Your task to perform on an android device: Show me popular videos on Youtube Image 0: 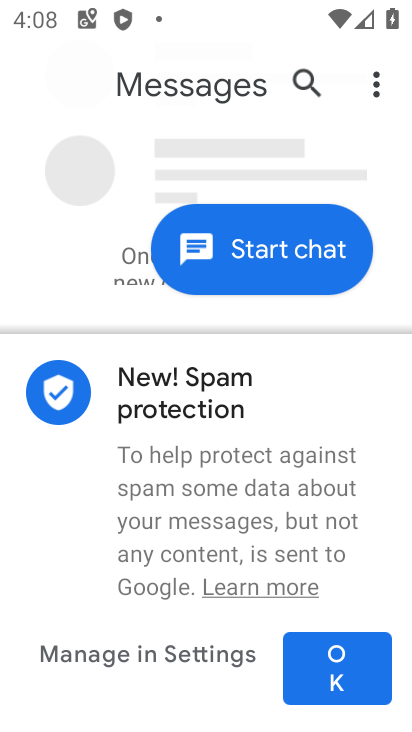
Step 0: press back button
Your task to perform on an android device: Show me popular videos on Youtube Image 1: 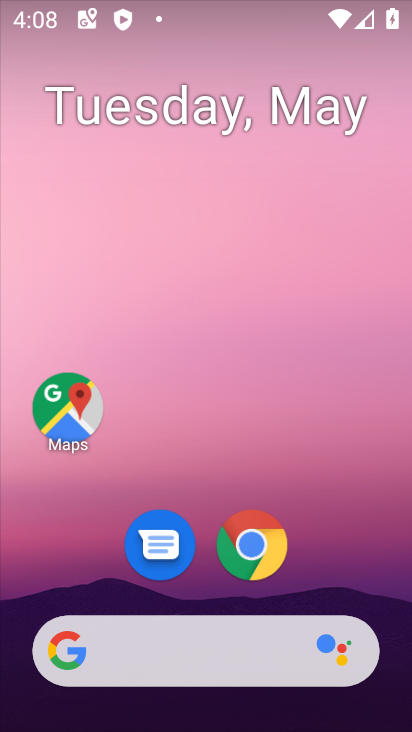
Step 1: drag from (330, 567) to (260, 145)
Your task to perform on an android device: Show me popular videos on Youtube Image 2: 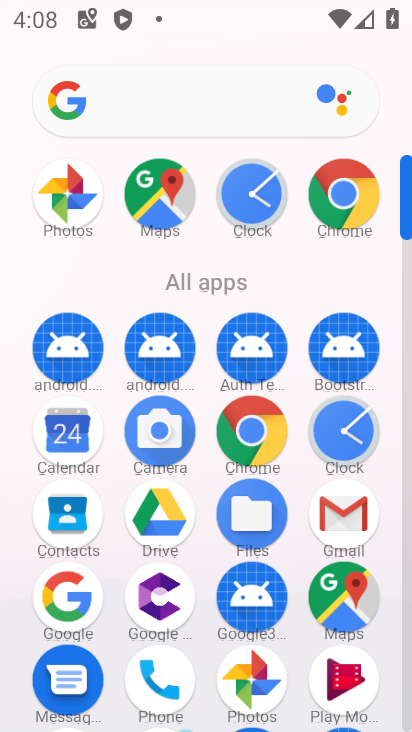
Step 2: drag from (304, 547) to (318, 239)
Your task to perform on an android device: Show me popular videos on Youtube Image 3: 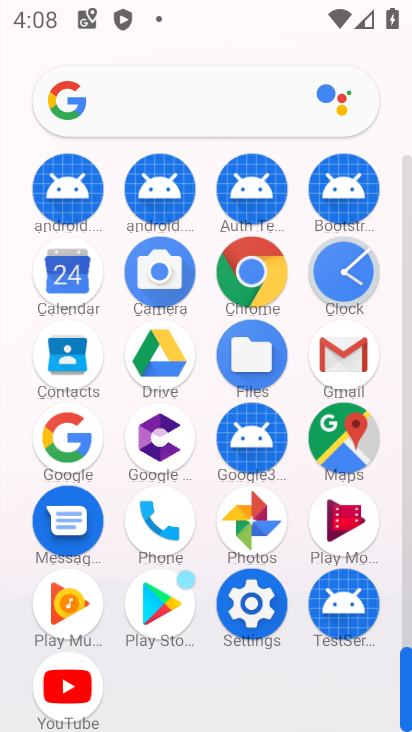
Step 3: click (68, 687)
Your task to perform on an android device: Show me popular videos on Youtube Image 4: 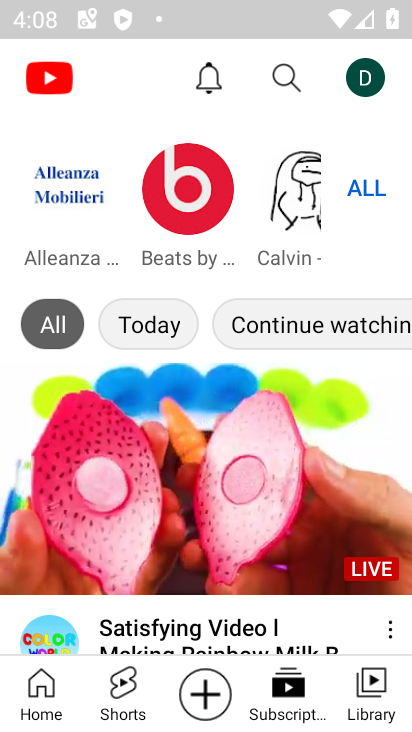
Step 4: click (288, 82)
Your task to perform on an android device: Show me popular videos on Youtube Image 5: 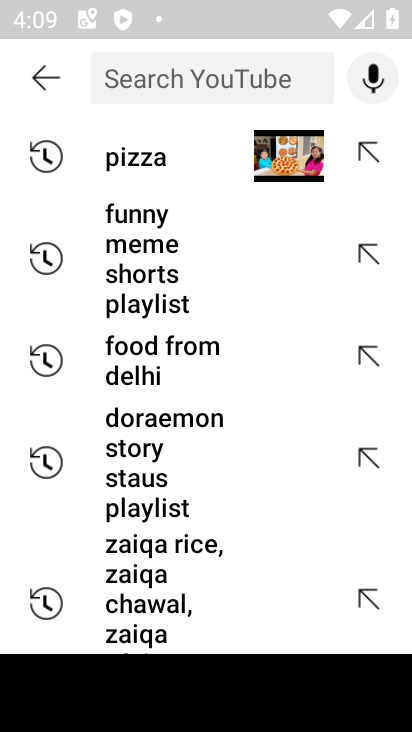
Step 5: type "popular videos"
Your task to perform on an android device: Show me popular videos on Youtube Image 6: 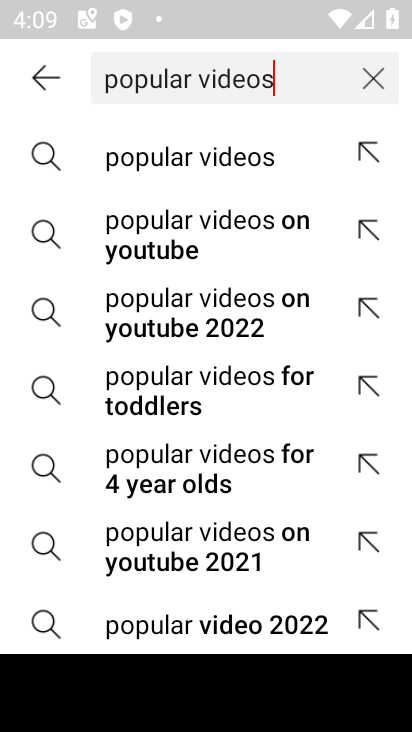
Step 6: click (231, 220)
Your task to perform on an android device: Show me popular videos on Youtube Image 7: 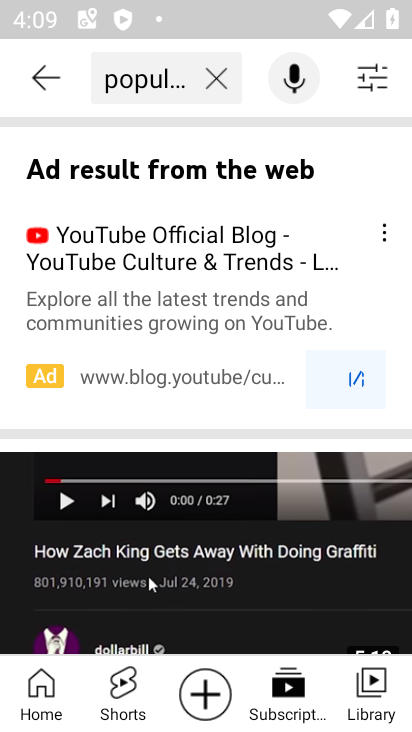
Step 7: task complete